Your task to perform on an android device: allow notifications from all sites in the chrome app Image 0: 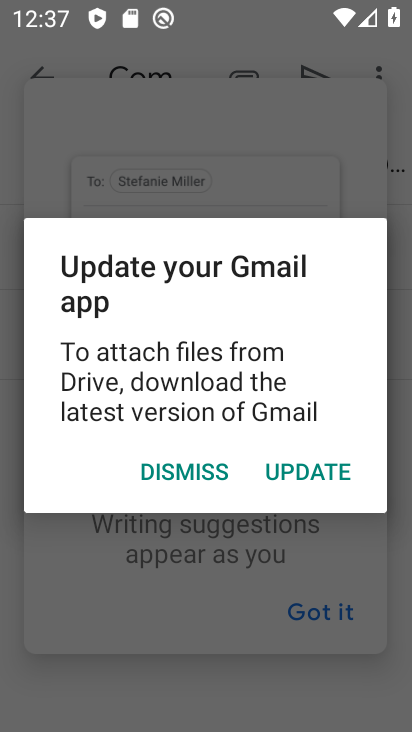
Step 0: press home button
Your task to perform on an android device: allow notifications from all sites in the chrome app Image 1: 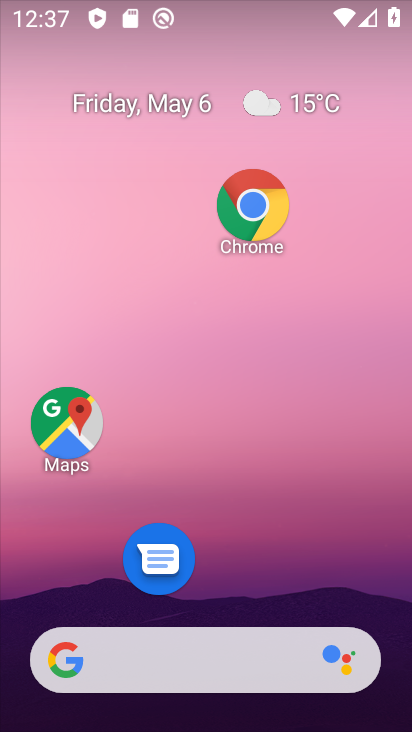
Step 1: click (245, 194)
Your task to perform on an android device: allow notifications from all sites in the chrome app Image 2: 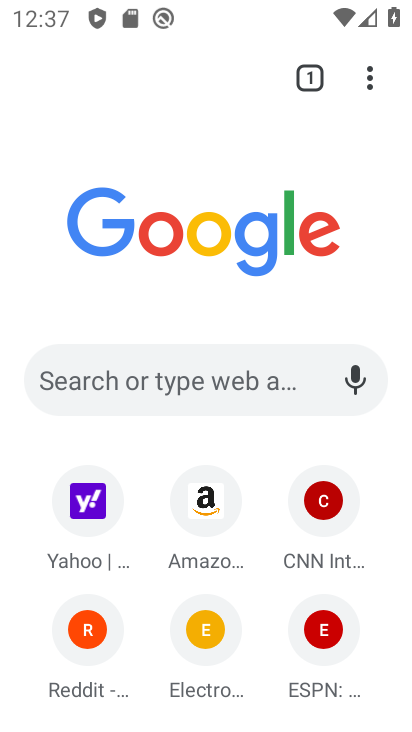
Step 2: click (375, 80)
Your task to perform on an android device: allow notifications from all sites in the chrome app Image 3: 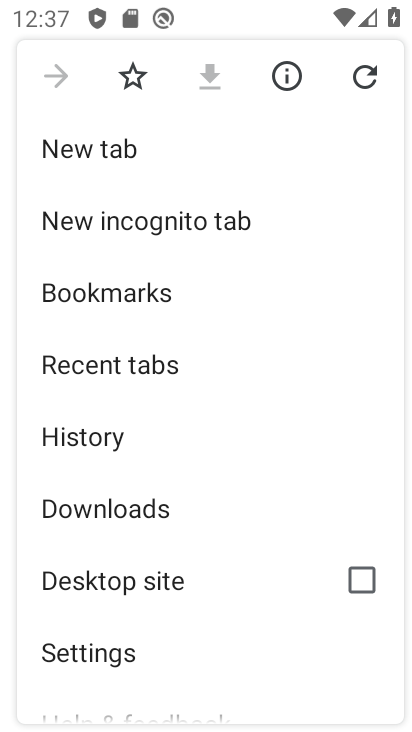
Step 3: click (151, 667)
Your task to perform on an android device: allow notifications from all sites in the chrome app Image 4: 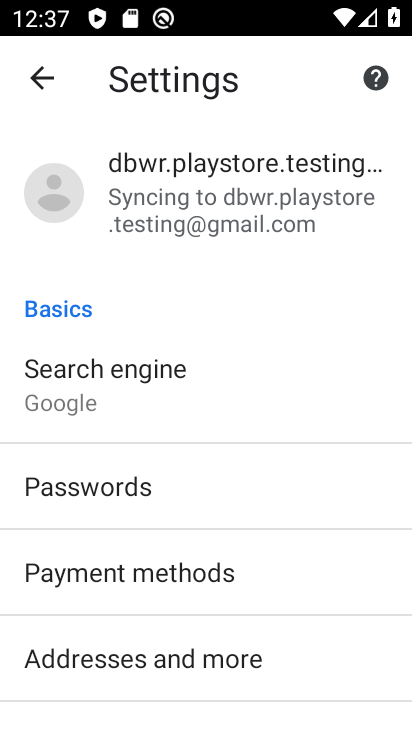
Step 4: drag from (234, 571) to (172, 118)
Your task to perform on an android device: allow notifications from all sites in the chrome app Image 5: 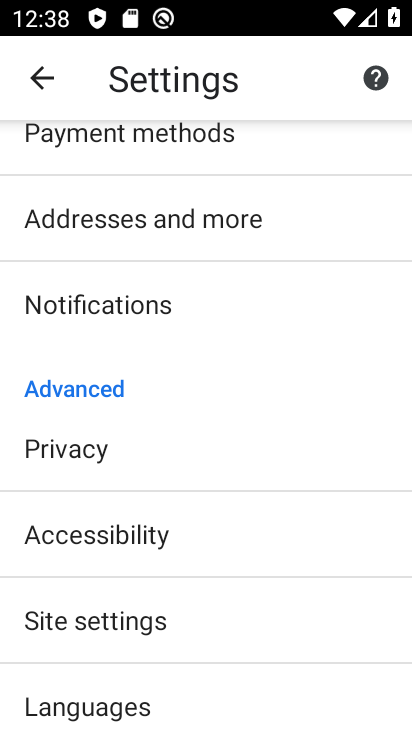
Step 5: click (124, 610)
Your task to perform on an android device: allow notifications from all sites in the chrome app Image 6: 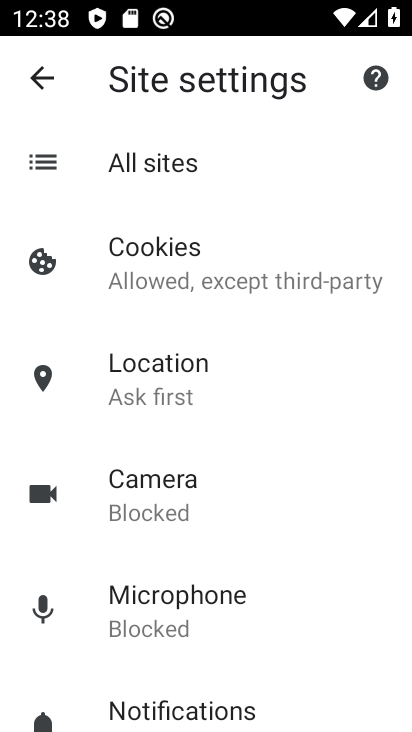
Step 6: click (116, 691)
Your task to perform on an android device: allow notifications from all sites in the chrome app Image 7: 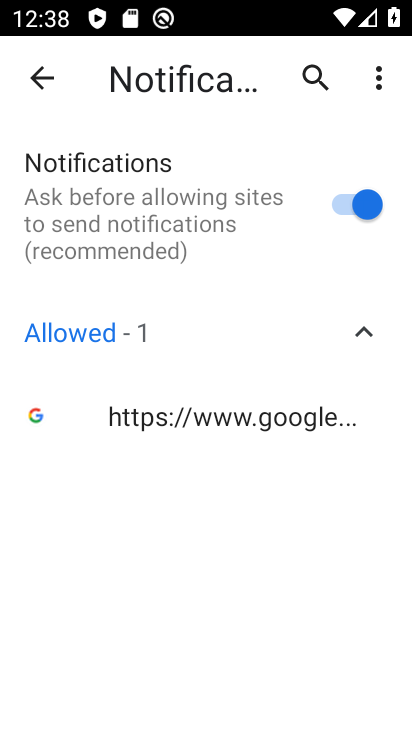
Step 7: click (34, 91)
Your task to perform on an android device: allow notifications from all sites in the chrome app Image 8: 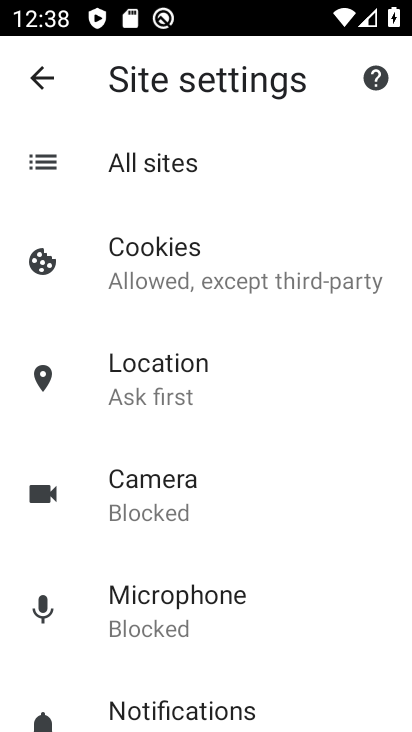
Step 8: click (159, 694)
Your task to perform on an android device: allow notifications from all sites in the chrome app Image 9: 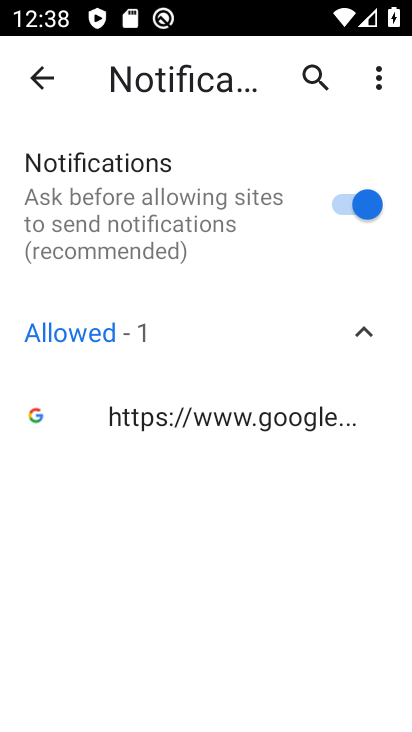
Step 9: task complete